Your task to perform on an android device: check android version Image 0: 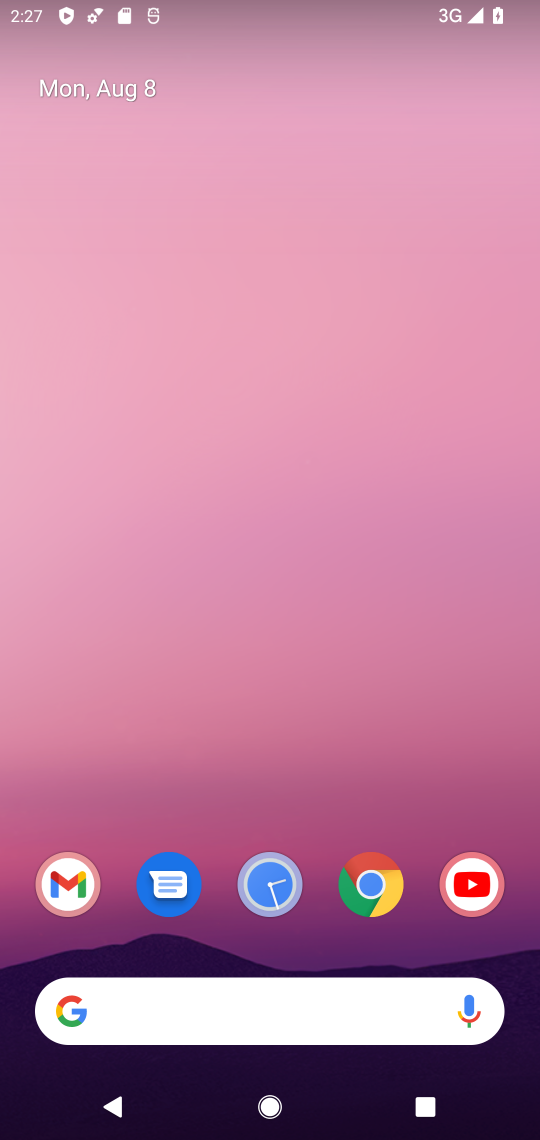
Step 0: drag from (242, 784) to (286, 1)
Your task to perform on an android device: check android version Image 1: 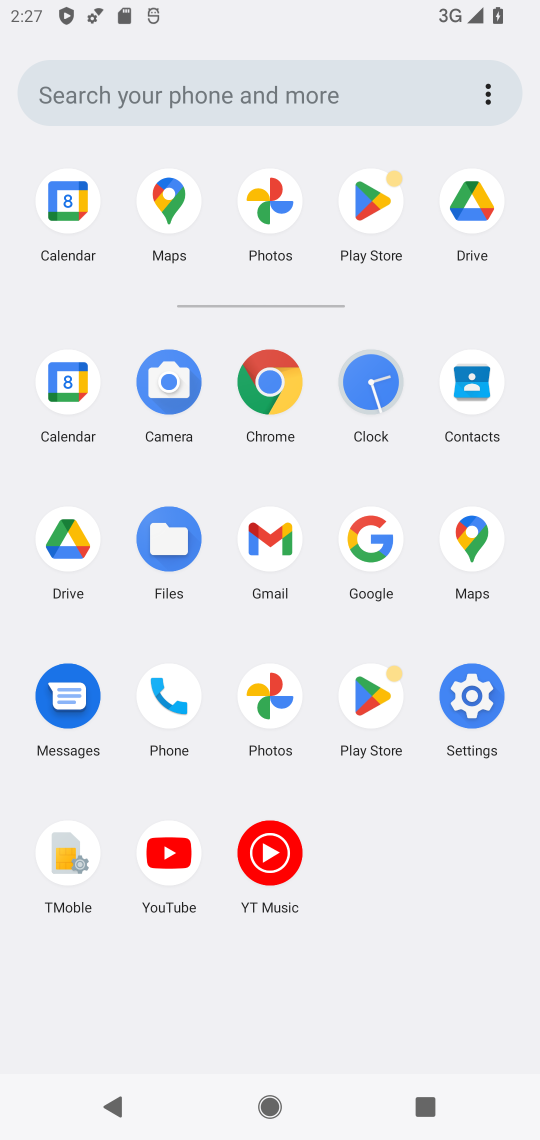
Step 1: click (467, 689)
Your task to perform on an android device: check android version Image 2: 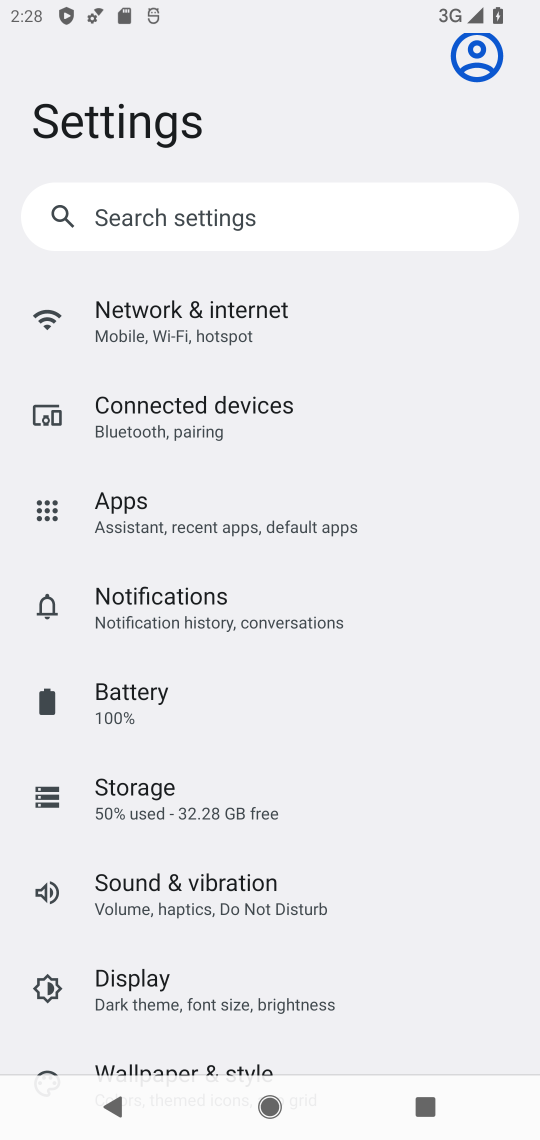
Step 2: drag from (390, 937) to (420, 253)
Your task to perform on an android device: check android version Image 3: 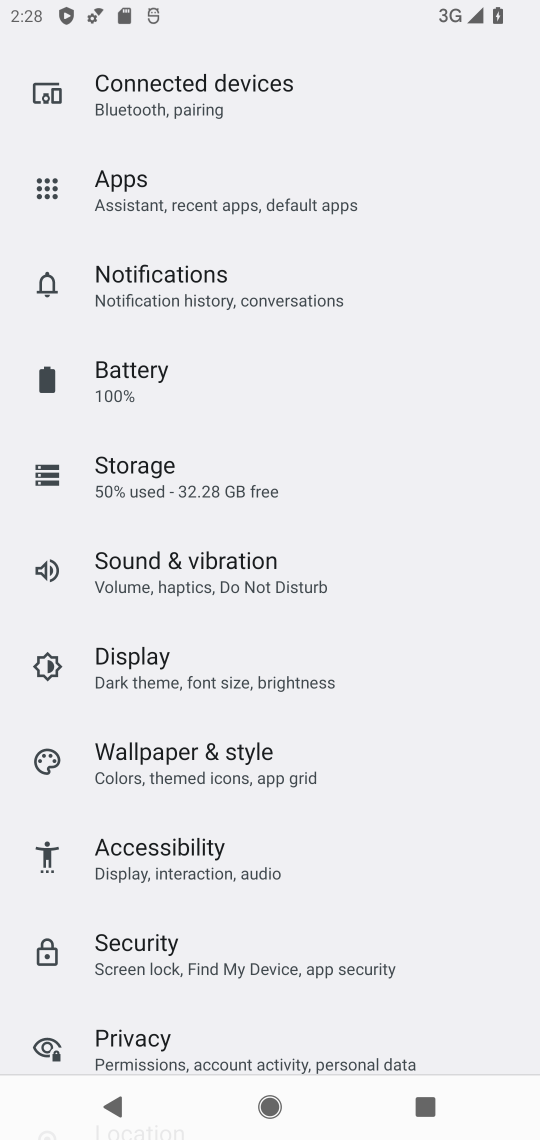
Step 3: drag from (366, 1014) to (337, 485)
Your task to perform on an android device: check android version Image 4: 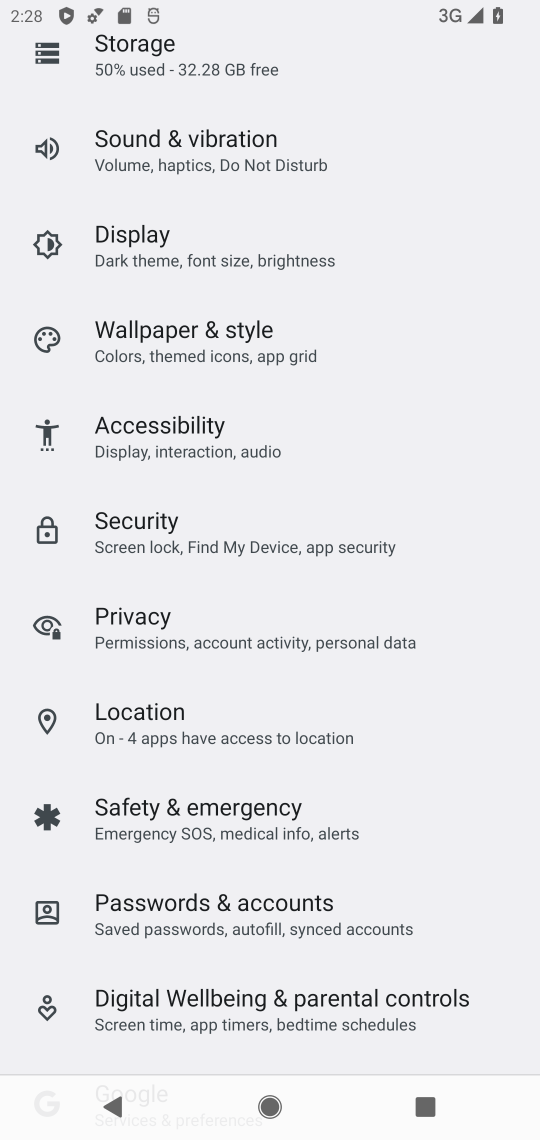
Step 4: drag from (401, 873) to (410, 209)
Your task to perform on an android device: check android version Image 5: 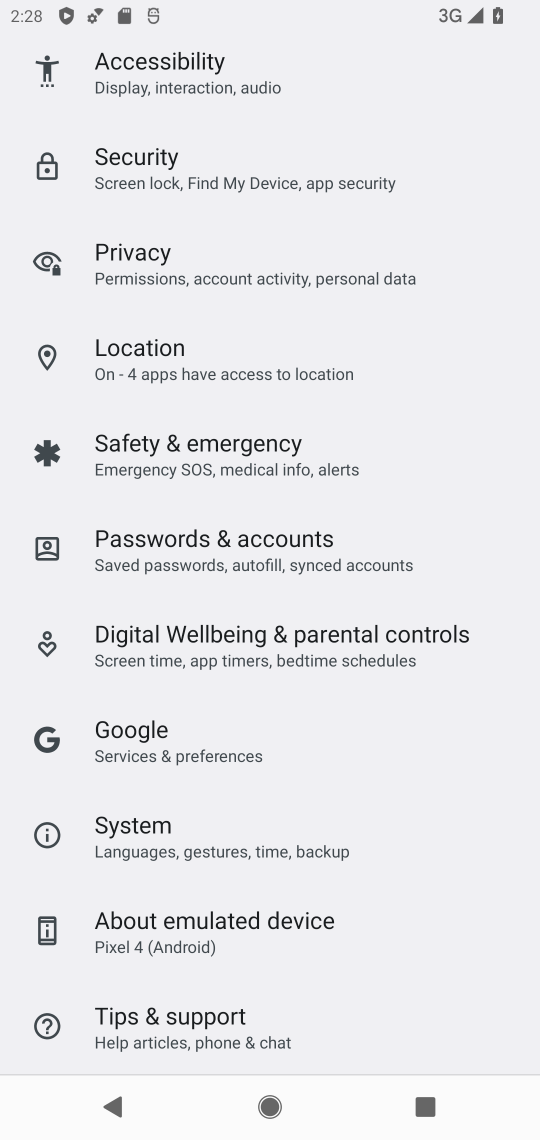
Step 5: click (218, 922)
Your task to perform on an android device: check android version Image 6: 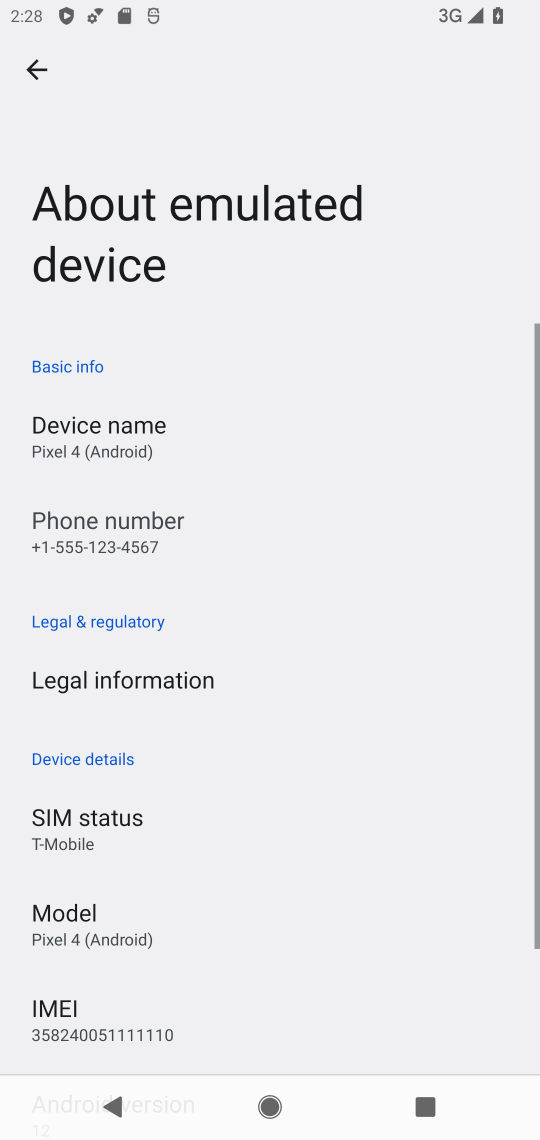
Step 6: task complete